Your task to perform on an android device: open a bookmark in the chrome app Image 0: 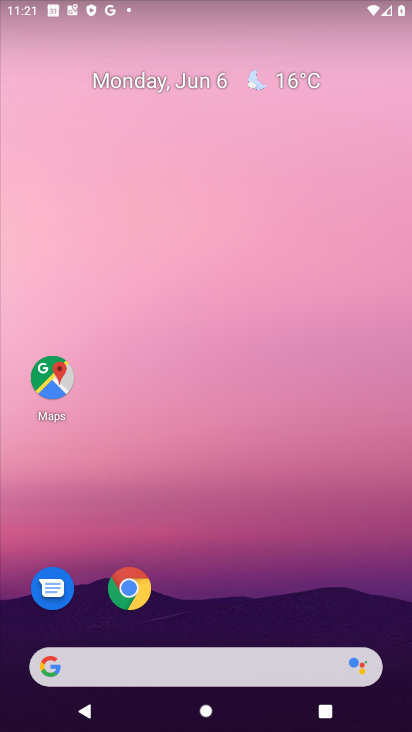
Step 0: click (130, 580)
Your task to perform on an android device: open a bookmark in the chrome app Image 1: 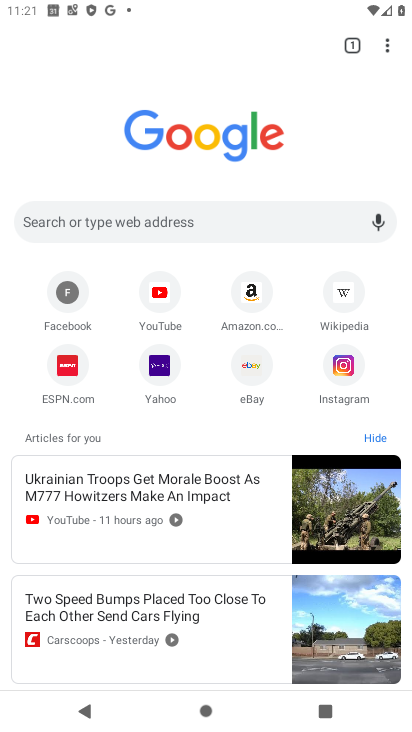
Step 1: click (389, 40)
Your task to perform on an android device: open a bookmark in the chrome app Image 2: 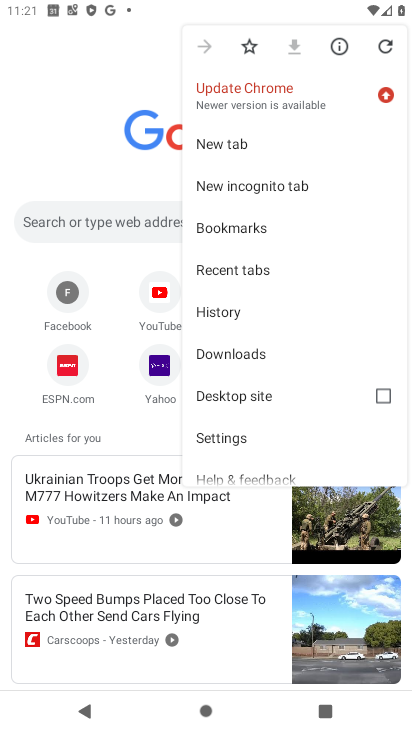
Step 2: click (253, 232)
Your task to perform on an android device: open a bookmark in the chrome app Image 3: 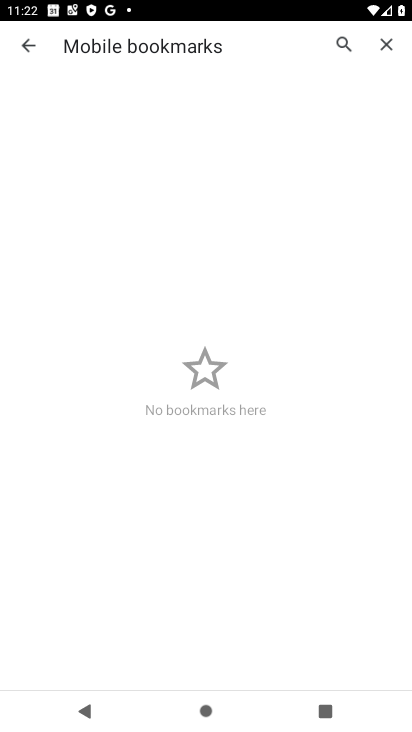
Step 3: task complete